Your task to perform on an android device: toggle improve location accuracy Image 0: 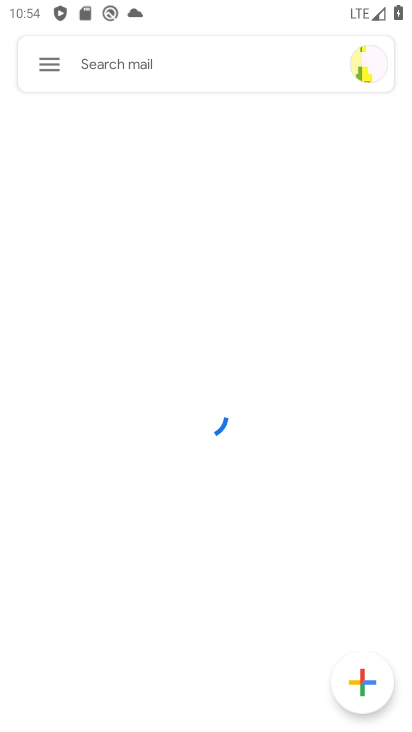
Step 0: press home button
Your task to perform on an android device: toggle improve location accuracy Image 1: 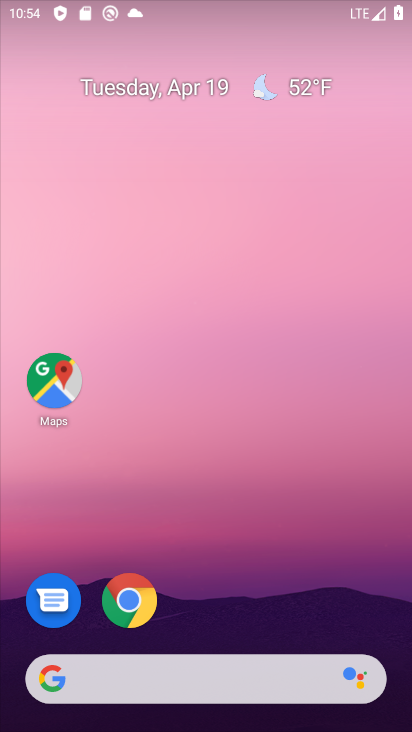
Step 1: drag from (361, 619) to (132, 42)
Your task to perform on an android device: toggle improve location accuracy Image 2: 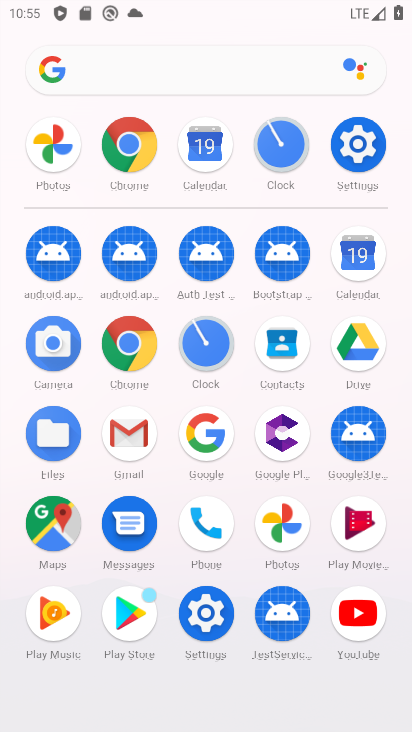
Step 2: click (345, 132)
Your task to perform on an android device: toggle improve location accuracy Image 3: 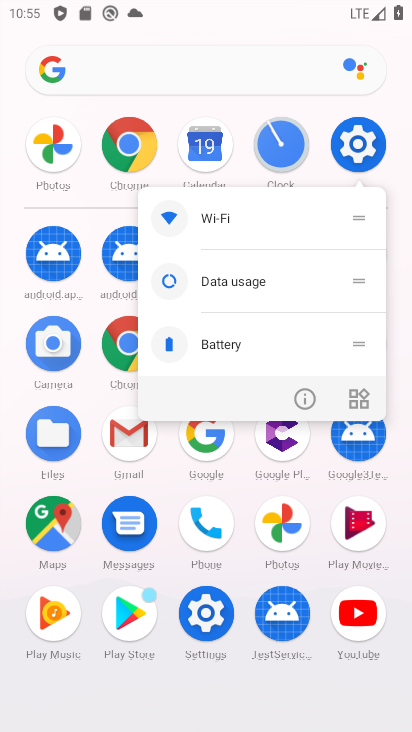
Step 3: click (357, 150)
Your task to perform on an android device: toggle improve location accuracy Image 4: 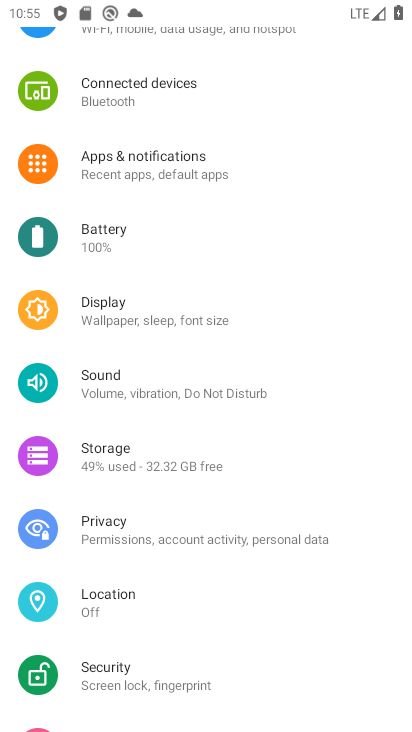
Step 4: click (135, 618)
Your task to perform on an android device: toggle improve location accuracy Image 5: 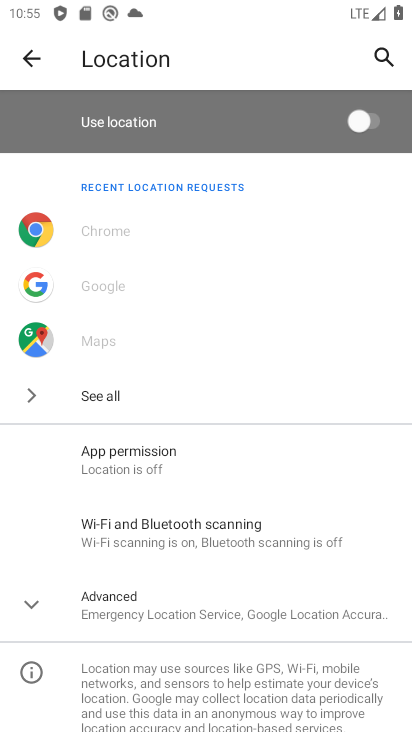
Step 5: click (135, 614)
Your task to perform on an android device: toggle improve location accuracy Image 6: 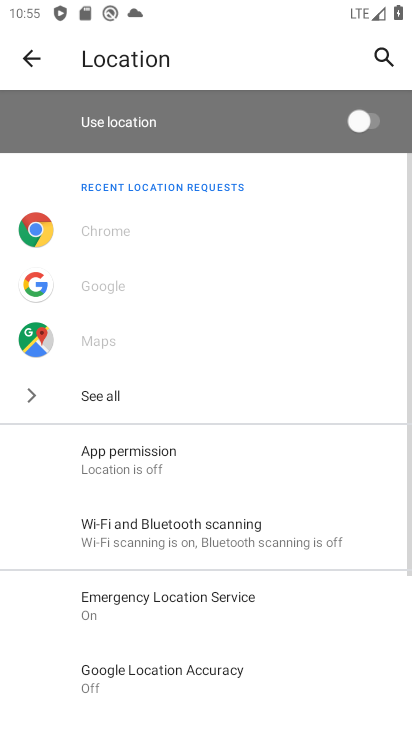
Step 6: click (190, 692)
Your task to perform on an android device: toggle improve location accuracy Image 7: 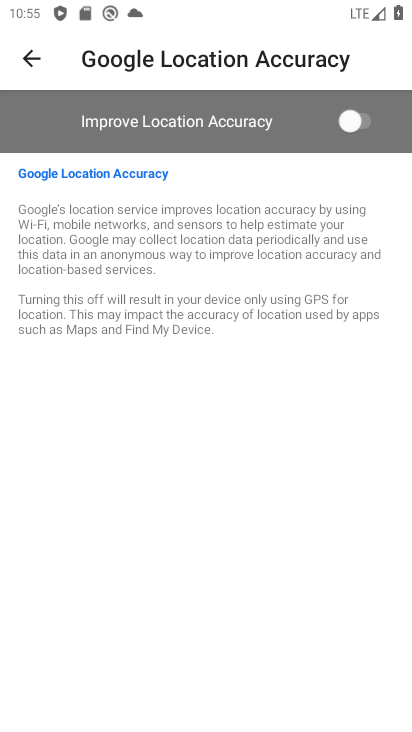
Step 7: click (349, 126)
Your task to perform on an android device: toggle improve location accuracy Image 8: 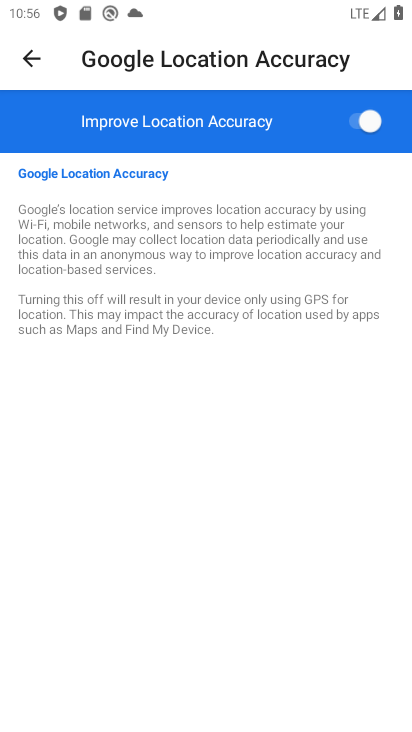
Step 8: task complete